Your task to perform on an android device: Open Android settings Image 0: 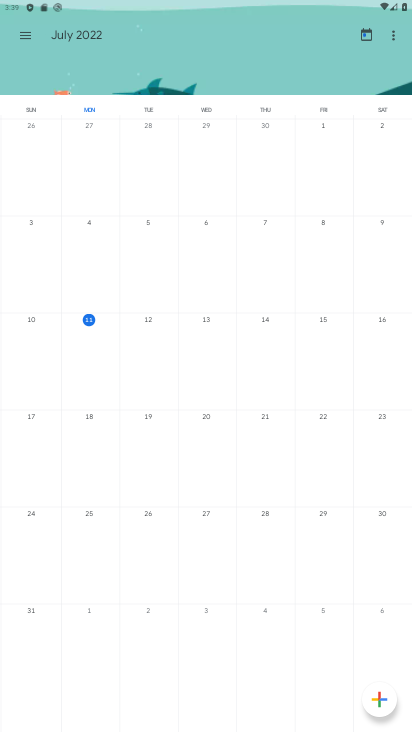
Step 0: press home button
Your task to perform on an android device: Open Android settings Image 1: 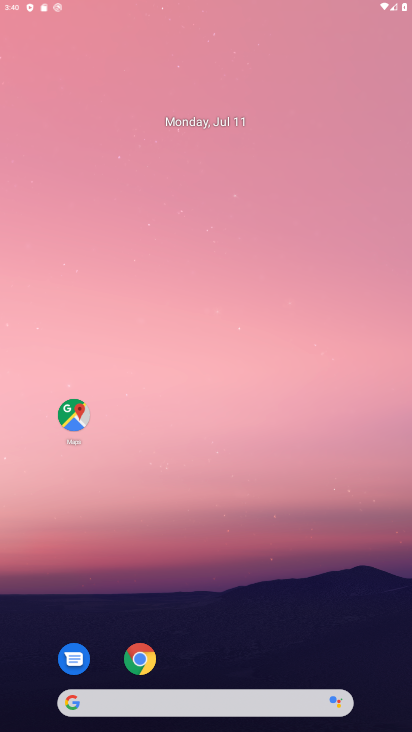
Step 1: click (254, 500)
Your task to perform on an android device: Open Android settings Image 2: 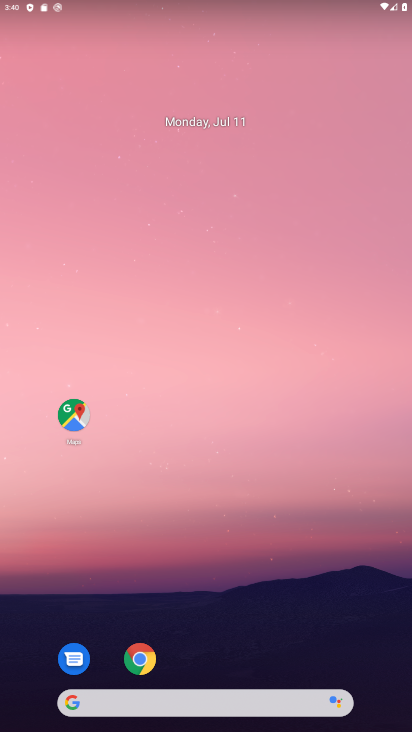
Step 2: drag from (193, 643) to (193, 581)
Your task to perform on an android device: Open Android settings Image 3: 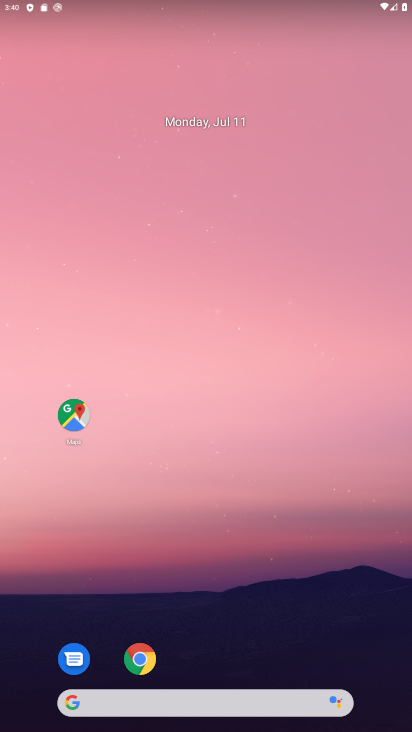
Step 3: drag from (225, 604) to (242, 181)
Your task to perform on an android device: Open Android settings Image 4: 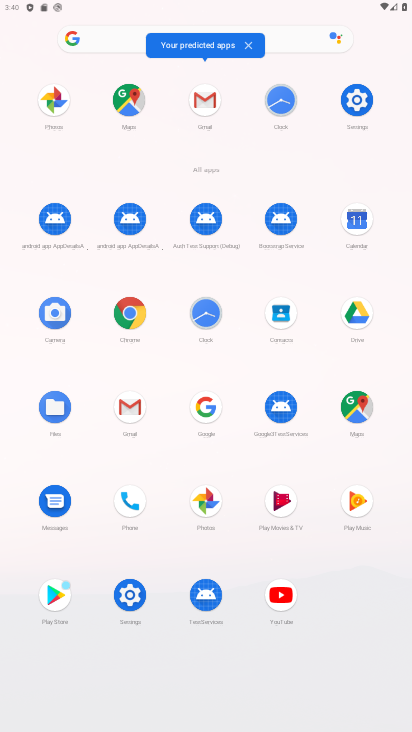
Step 4: click (360, 97)
Your task to perform on an android device: Open Android settings Image 5: 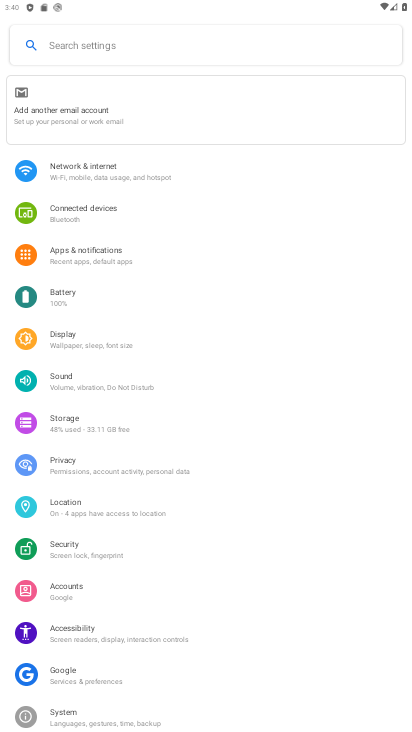
Step 5: task complete